Your task to perform on an android device: turn off notifications settings in the gmail app Image 0: 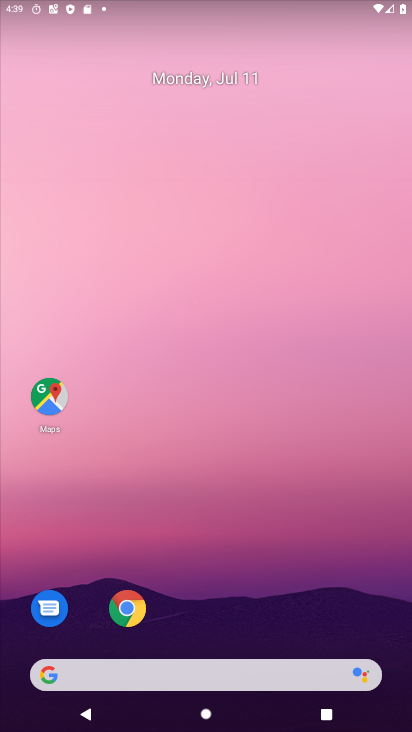
Step 0: drag from (268, 698) to (236, 233)
Your task to perform on an android device: turn off notifications settings in the gmail app Image 1: 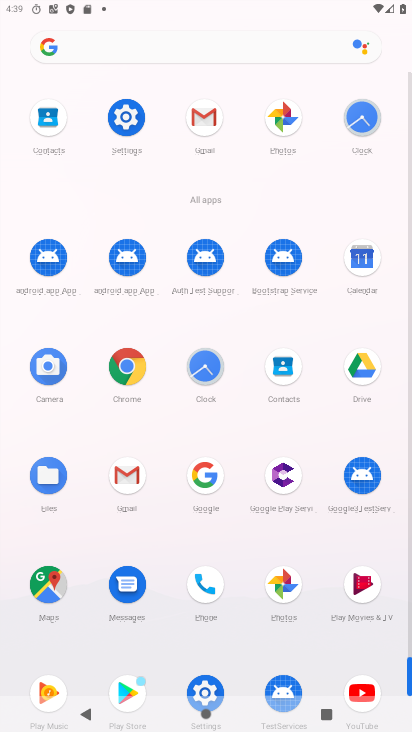
Step 1: click (130, 469)
Your task to perform on an android device: turn off notifications settings in the gmail app Image 2: 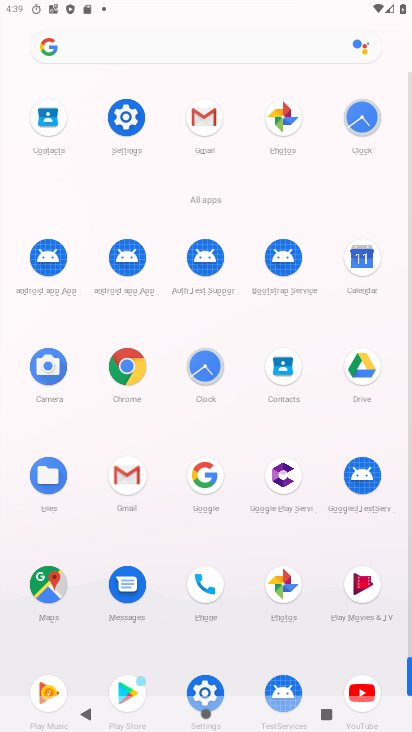
Step 2: click (129, 470)
Your task to perform on an android device: turn off notifications settings in the gmail app Image 3: 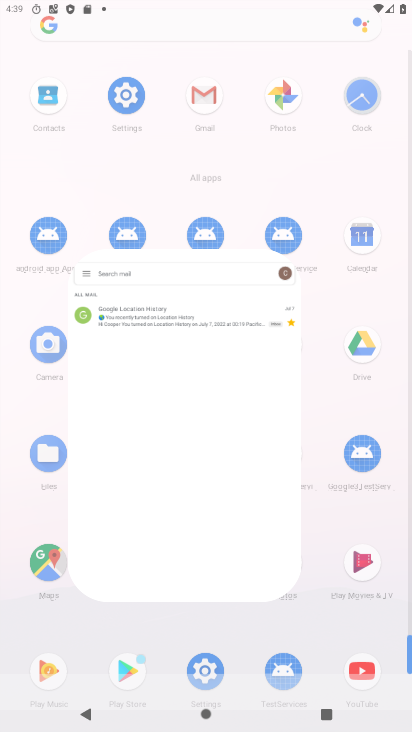
Step 3: click (129, 474)
Your task to perform on an android device: turn off notifications settings in the gmail app Image 4: 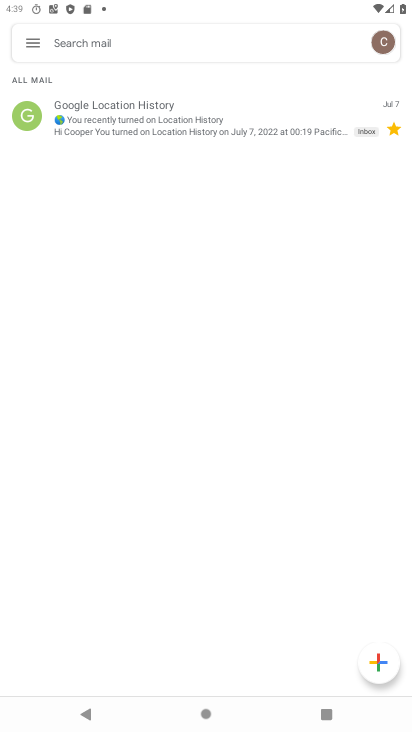
Step 4: click (108, 106)
Your task to perform on an android device: turn off notifications settings in the gmail app Image 5: 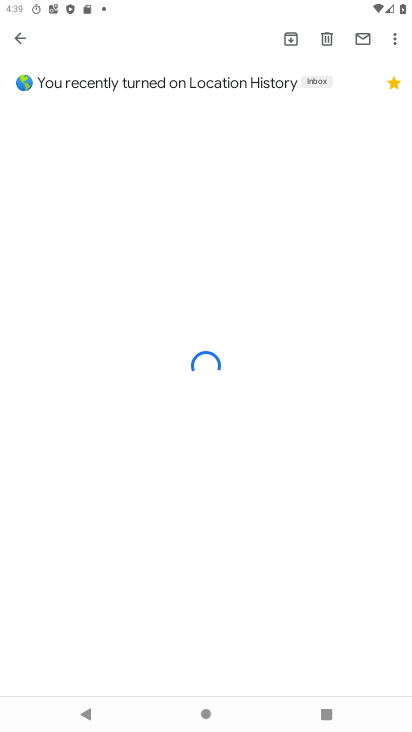
Step 5: click (11, 22)
Your task to perform on an android device: turn off notifications settings in the gmail app Image 6: 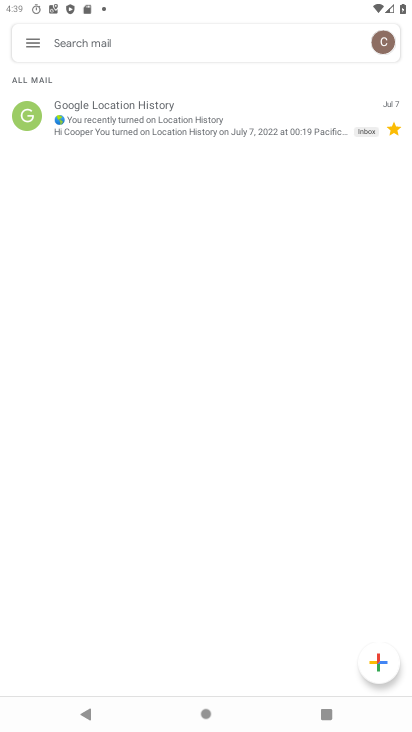
Step 6: click (29, 43)
Your task to perform on an android device: turn off notifications settings in the gmail app Image 7: 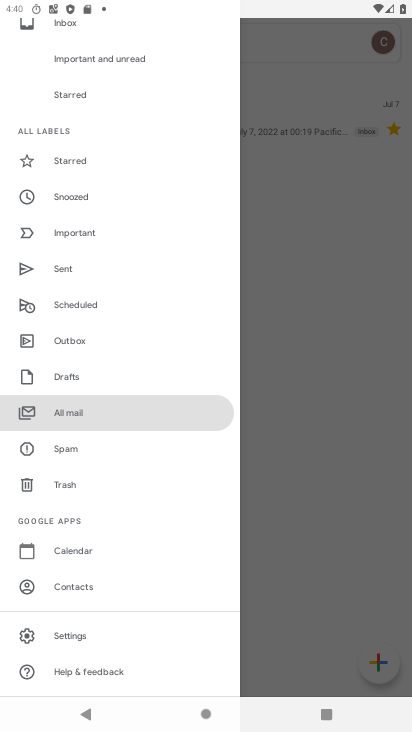
Step 7: click (73, 636)
Your task to perform on an android device: turn off notifications settings in the gmail app Image 8: 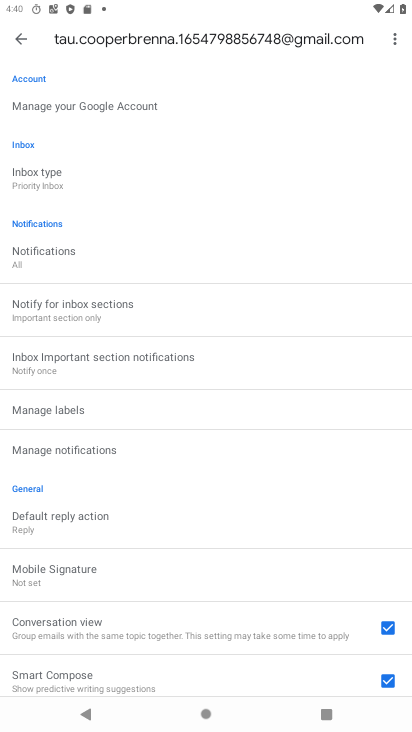
Step 8: click (35, 251)
Your task to perform on an android device: turn off notifications settings in the gmail app Image 9: 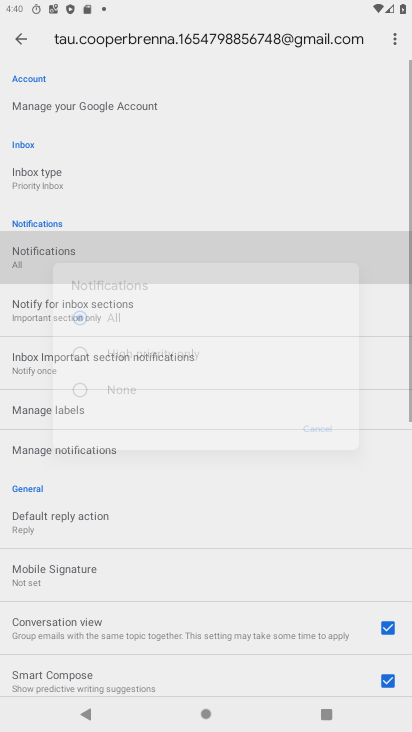
Step 9: click (35, 251)
Your task to perform on an android device: turn off notifications settings in the gmail app Image 10: 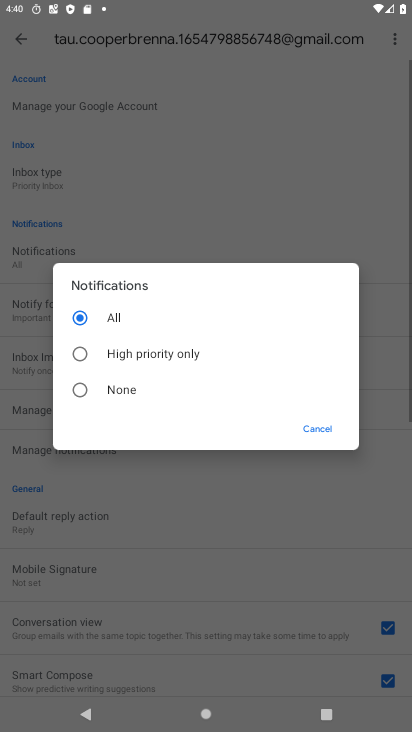
Step 10: click (36, 251)
Your task to perform on an android device: turn off notifications settings in the gmail app Image 11: 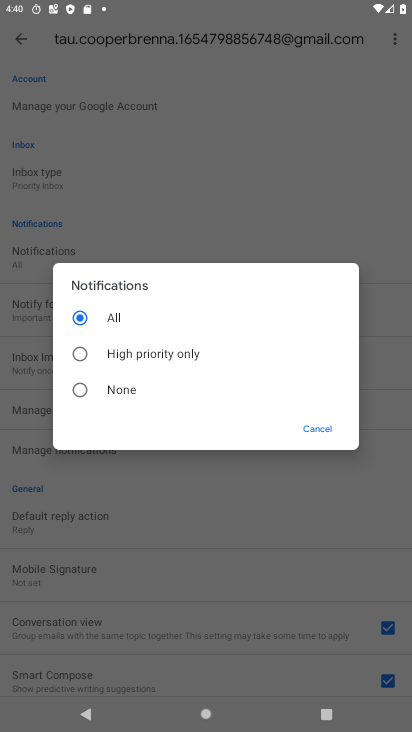
Step 11: click (79, 383)
Your task to perform on an android device: turn off notifications settings in the gmail app Image 12: 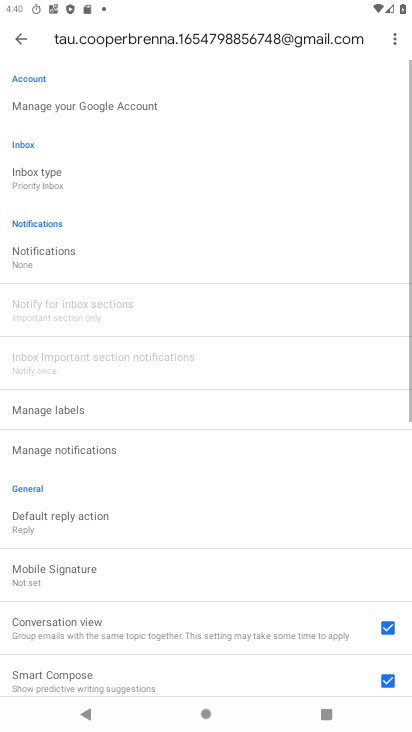
Step 12: click (79, 383)
Your task to perform on an android device: turn off notifications settings in the gmail app Image 13: 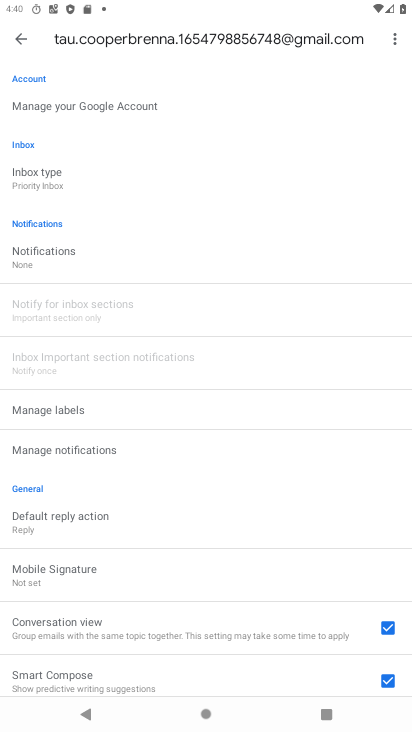
Step 13: task complete